Your task to perform on an android device: change the clock style Image 0: 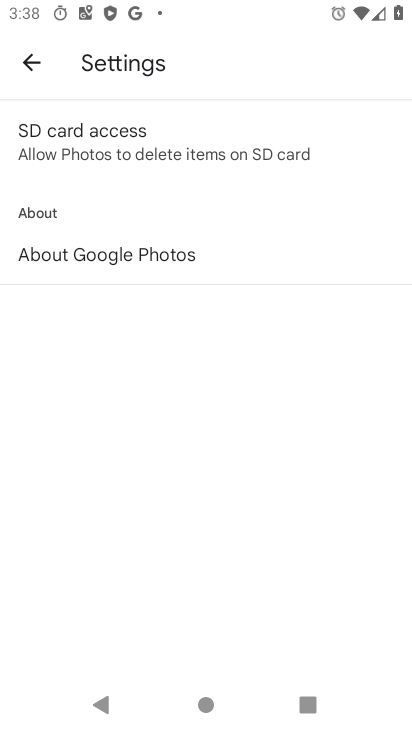
Step 0: drag from (380, 647) to (392, 258)
Your task to perform on an android device: change the clock style Image 1: 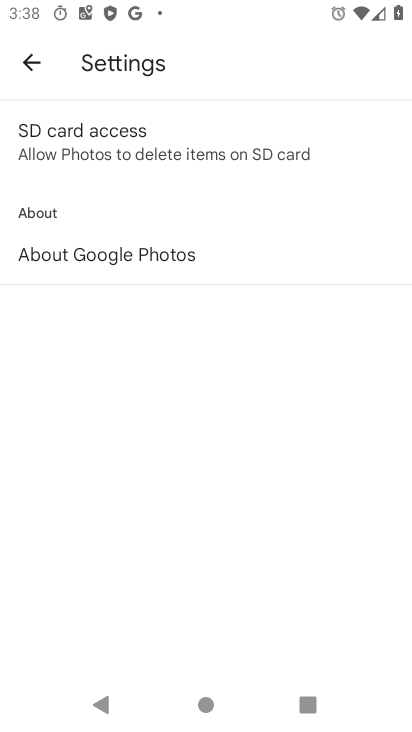
Step 1: drag from (381, 618) to (376, 289)
Your task to perform on an android device: change the clock style Image 2: 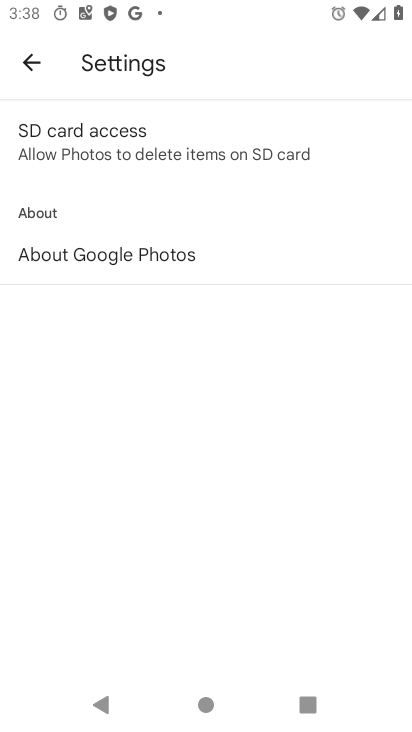
Step 2: press home button
Your task to perform on an android device: change the clock style Image 3: 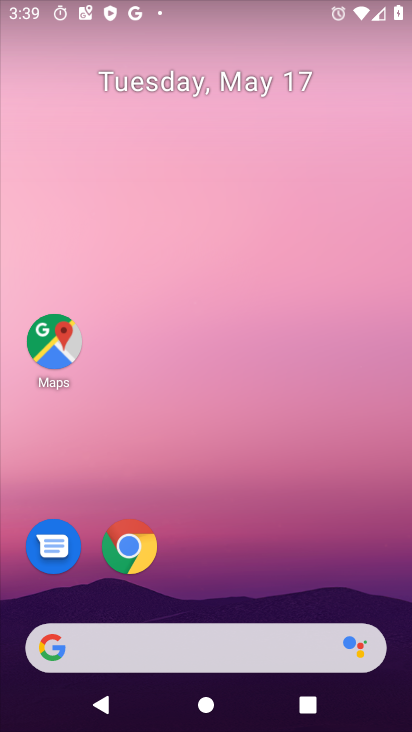
Step 3: drag from (401, 613) to (387, 283)
Your task to perform on an android device: change the clock style Image 4: 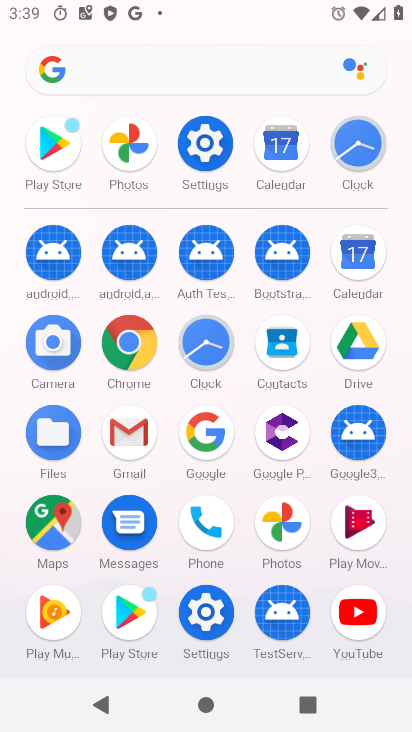
Step 4: click (195, 349)
Your task to perform on an android device: change the clock style Image 5: 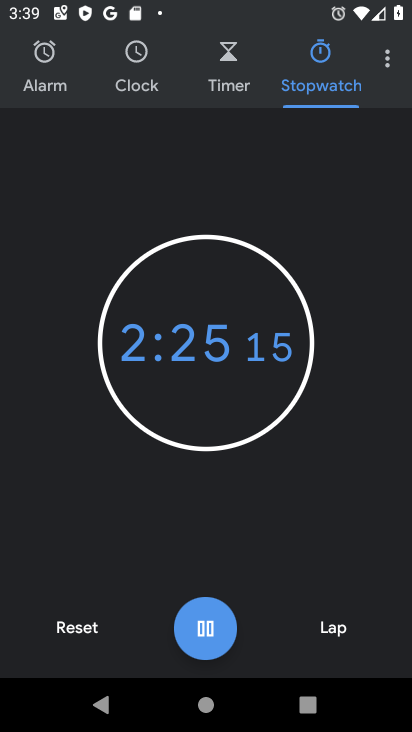
Step 5: click (394, 56)
Your task to perform on an android device: change the clock style Image 6: 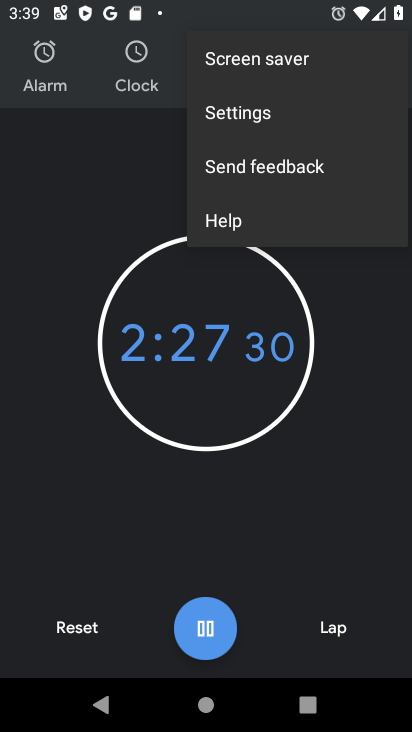
Step 6: click (266, 107)
Your task to perform on an android device: change the clock style Image 7: 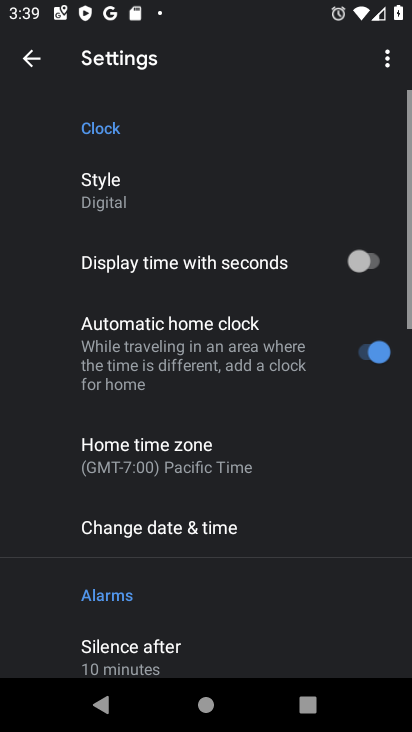
Step 7: click (117, 193)
Your task to perform on an android device: change the clock style Image 8: 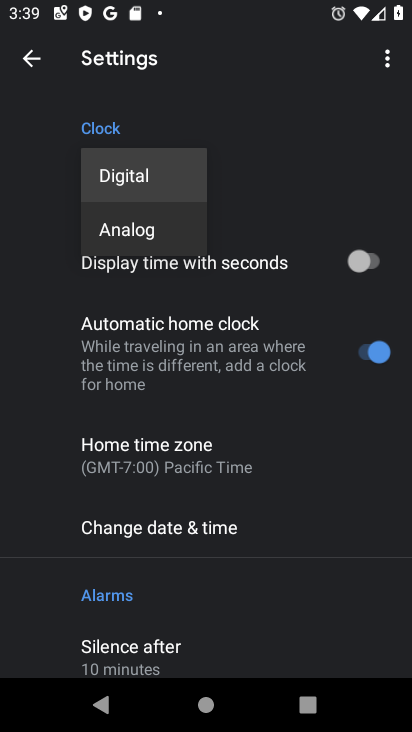
Step 8: click (155, 230)
Your task to perform on an android device: change the clock style Image 9: 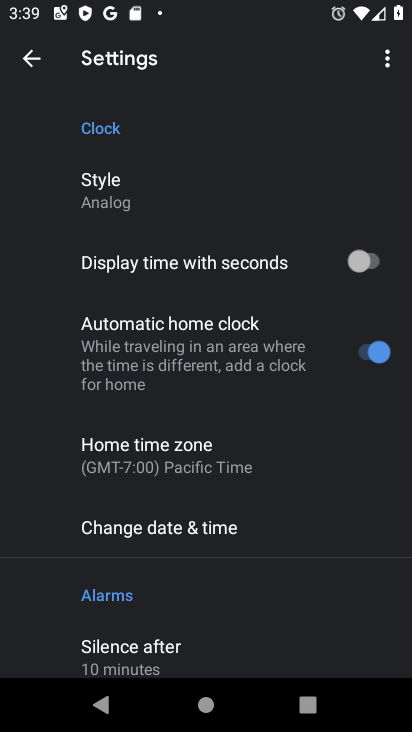
Step 9: task complete